Your task to perform on an android device: turn off translation in the chrome app Image 0: 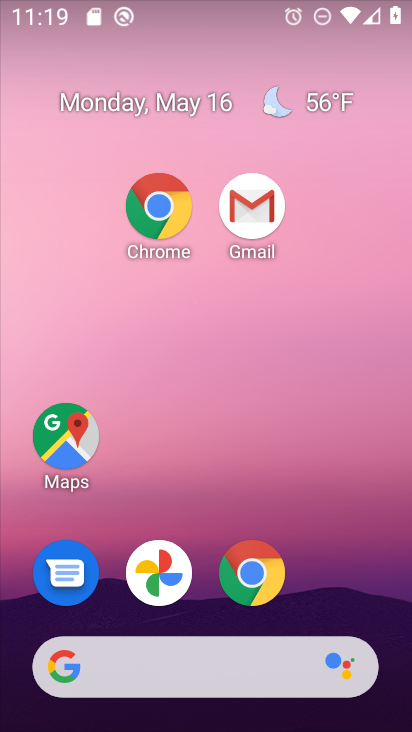
Step 0: drag from (399, 605) to (29, 135)
Your task to perform on an android device: turn off translation in the chrome app Image 1: 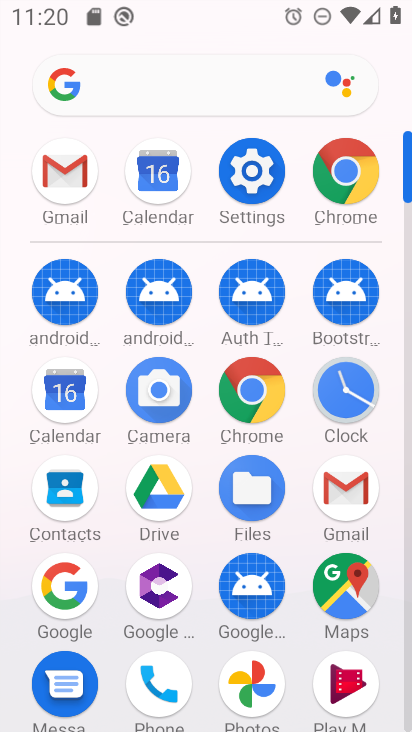
Step 1: click (343, 166)
Your task to perform on an android device: turn off translation in the chrome app Image 2: 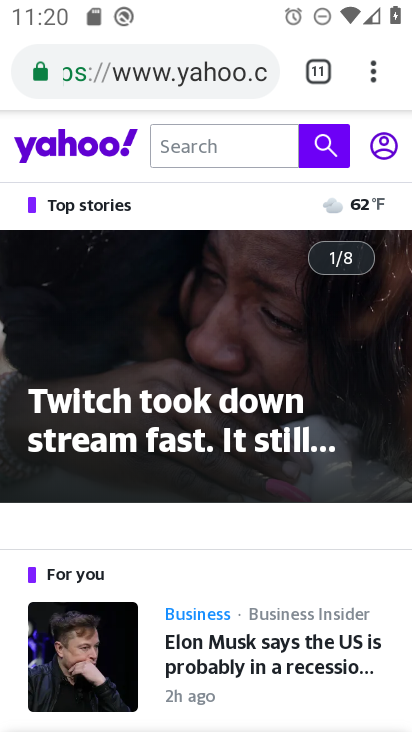
Step 2: click (373, 105)
Your task to perform on an android device: turn off translation in the chrome app Image 3: 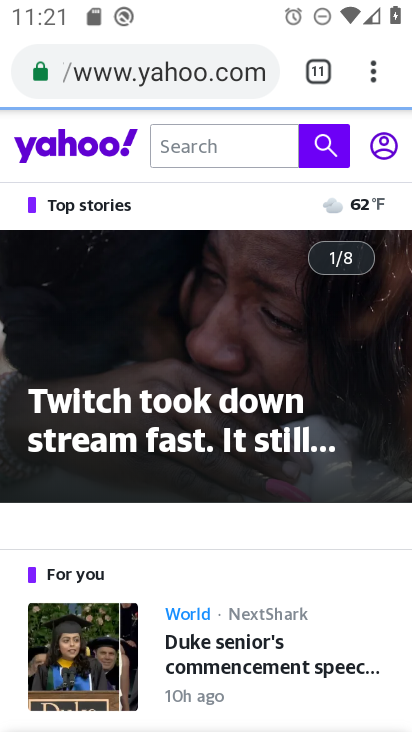
Step 3: click (374, 86)
Your task to perform on an android device: turn off translation in the chrome app Image 4: 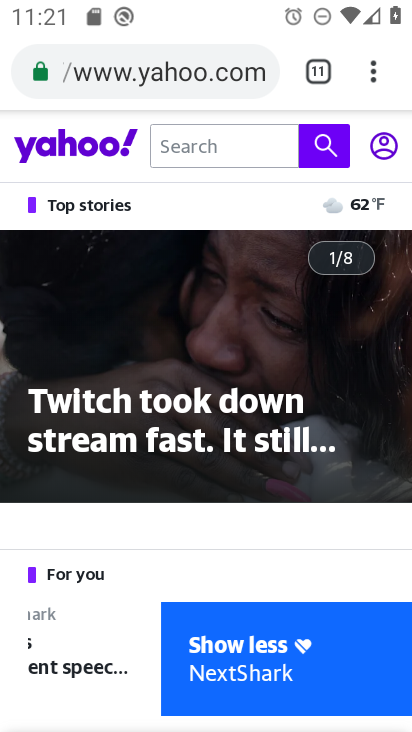
Step 4: drag from (370, 83) to (121, 575)
Your task to perform on an android device: turn off translation in the chrome app Image 5: 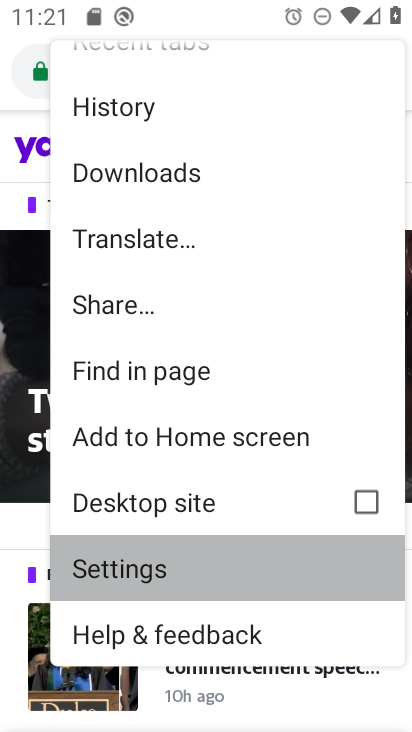
Step 5: click (124, 574)
Your task to perform on an android device: turn off translation in the chrome app Image 6: 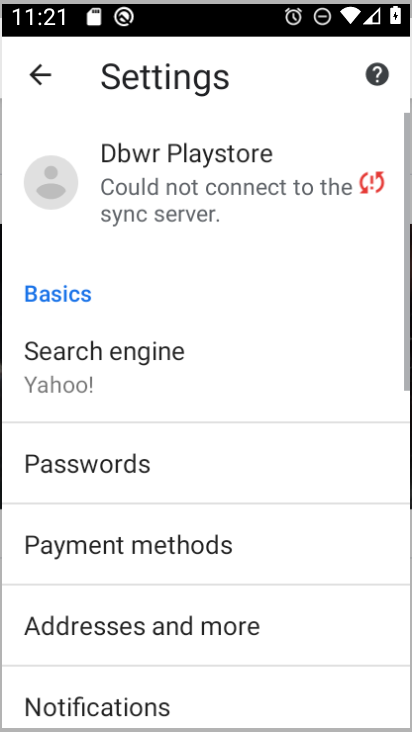
Step 6: click (134, 567)
Your task to perform on an android device: turn off translation in the chrome app Image 7: 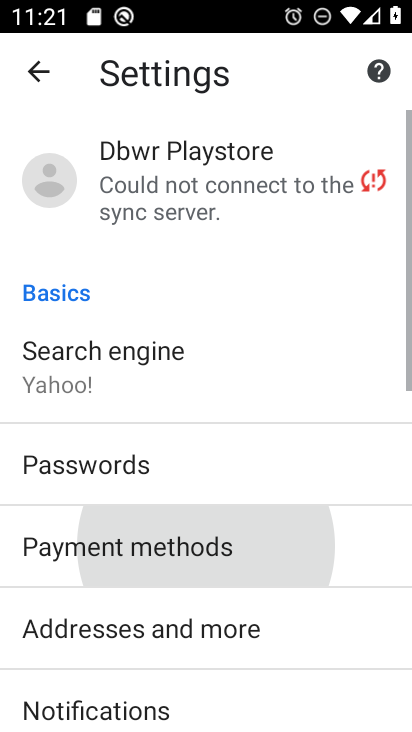
Step 7: click (139, 557)
Your task to perform on an android device: turn off translation in the chrome app Image 8: 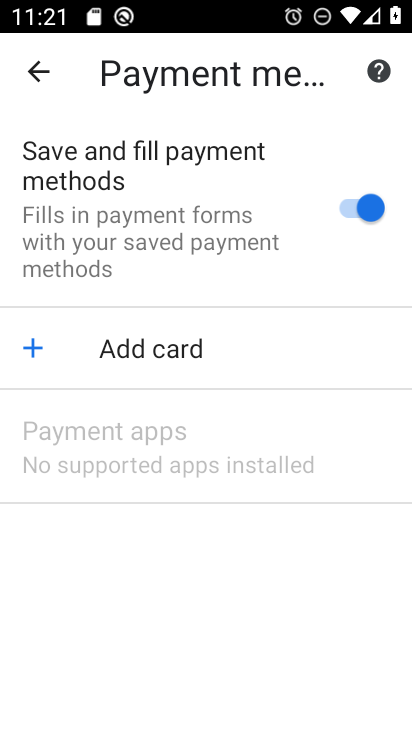
Step 8: click (35, 71)
Your task to perform on an android device: turn off translation in the chrome app Image 9: 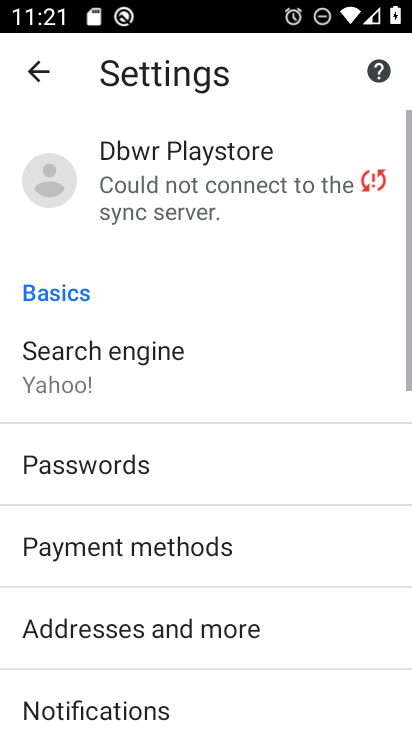
Step 9: drag from (205, 620) to (136, 16)
Your task to perform on an android device: turn off translation in the chrome app Image 10: 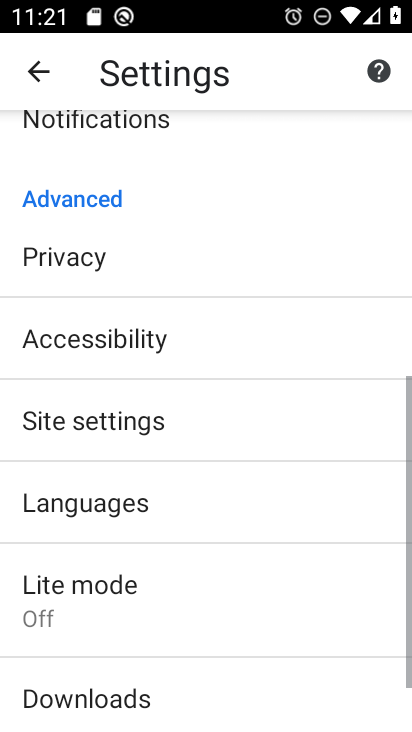
Step 10: drag from (123, 662) to (121, 119)
Your task to perform on an android device: turn off translation in the chrome app Image 11: 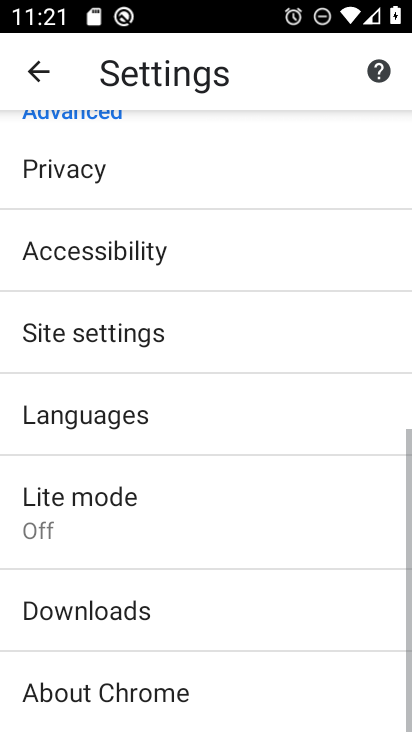
Step 11: click (84, 398)
Your task to perform on an android device: turn off translation in the chrome app Image 12: 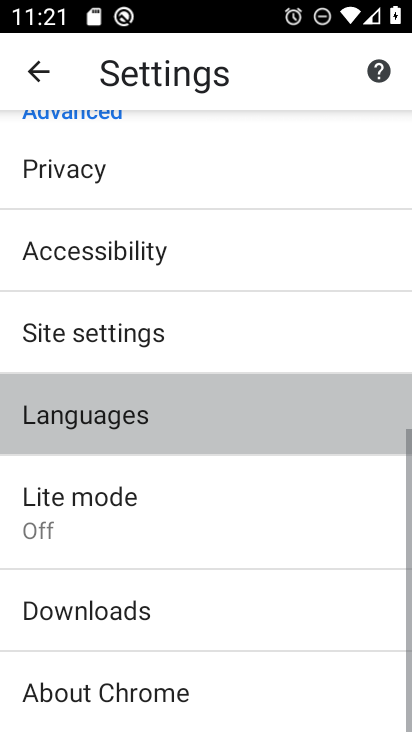
Step 12: click (84, 433)
Your task to perform on an android device: turn off translation in the chrome app Image 13: 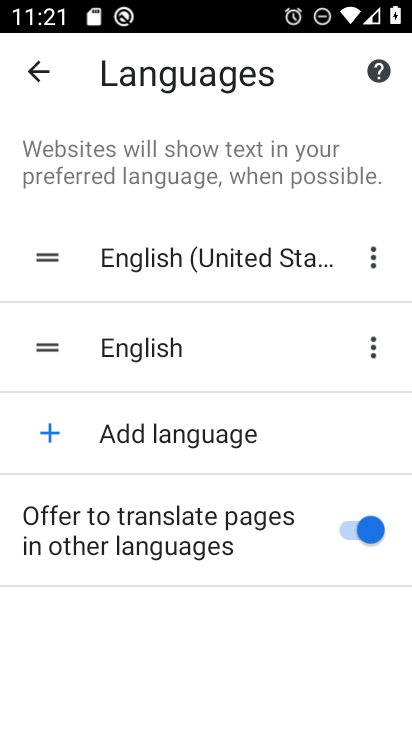
Step 13: click (368, 529)
Your task to perform on an android device: turn off translation in the chrome app Image 14: 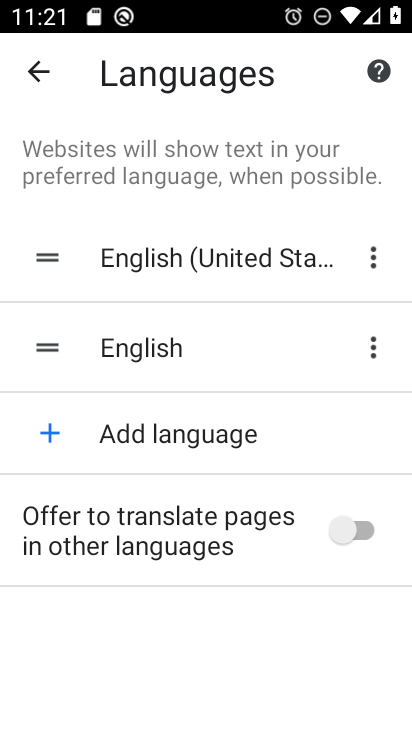
Step 14: task complete